Your task to perform on an android device: check google app version Image 0: 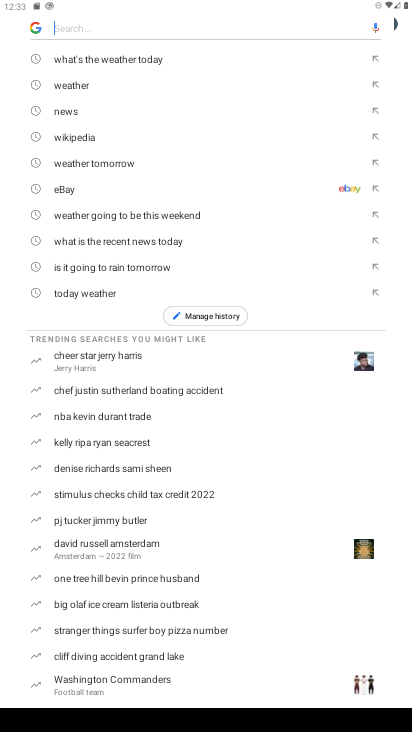
Step 0: press back button
Your task to perform on an android device: check google app version Image 1: 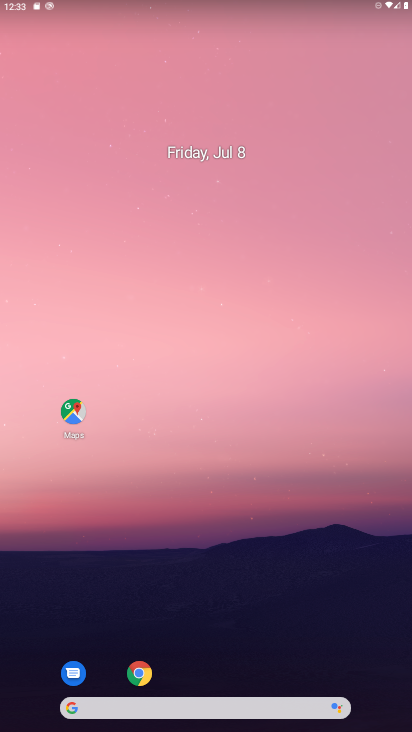
Step 1: drag from (376, 701) to (258, 45)
Your task to perform on an android device: check google app version Image 2: 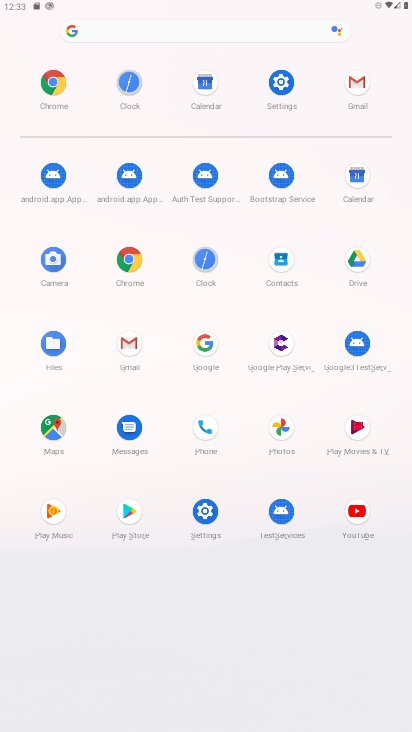
Step 2: click (198, 343)
Your task to perform on an android device: check google app version Image 3: 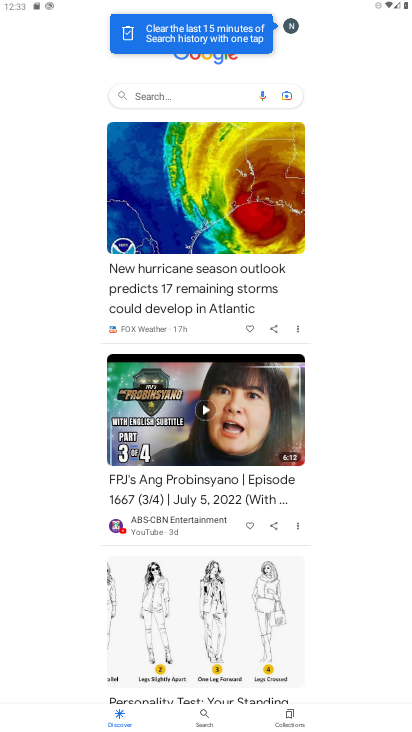
Step 3: press back button
Your task to perform on an android device: check google app version Image 4: 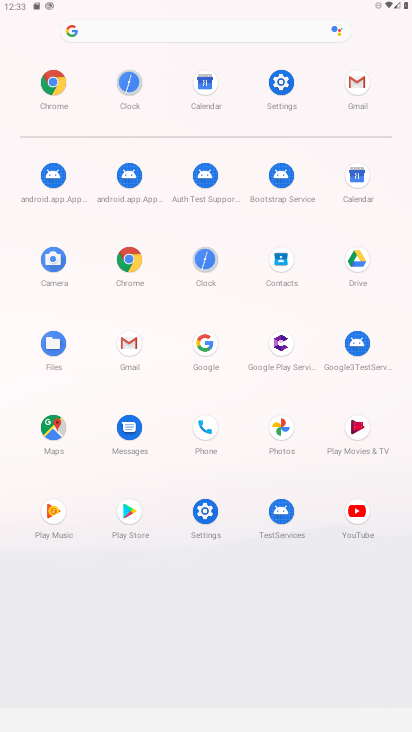
Step 4: click (205, 506)
Your task to perform on an android device: check google app version Image 5: 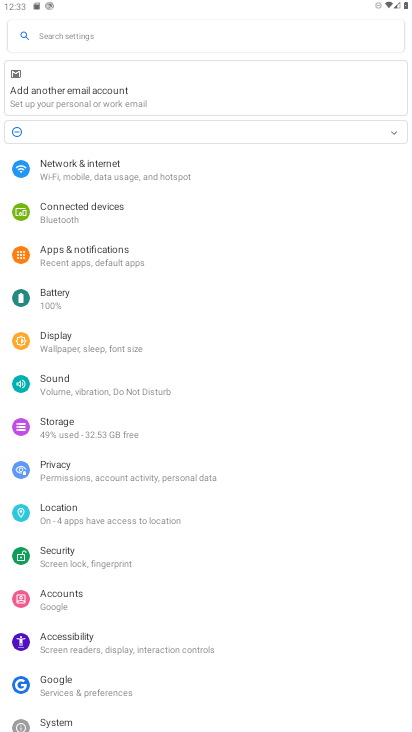
Step 5: drag from (175, 682) to (224, 364)
Your task to perform on an android device: check google app version Image 6: 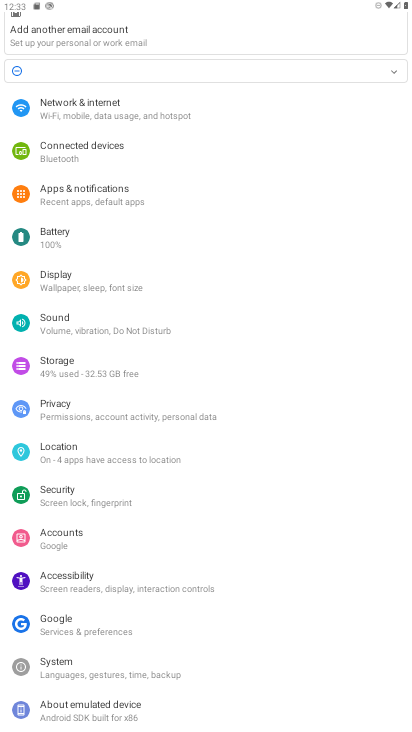
Step 6: click (51, 706)
Your task to perform on an android device: check google app version Image 7: 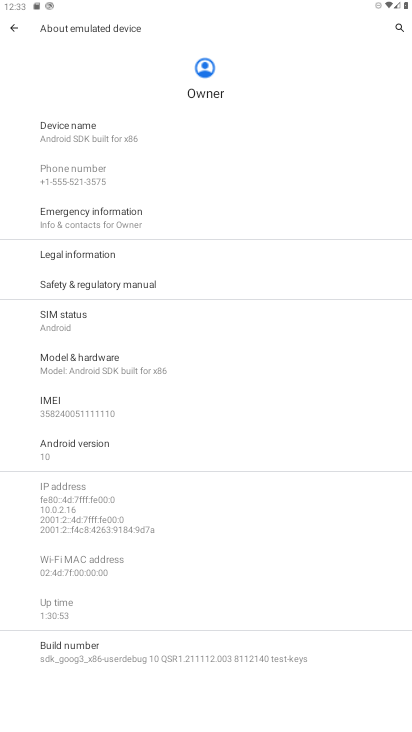
Step 7: click (58, 445)
Your task to perform on an android device: check google app version Image 8: 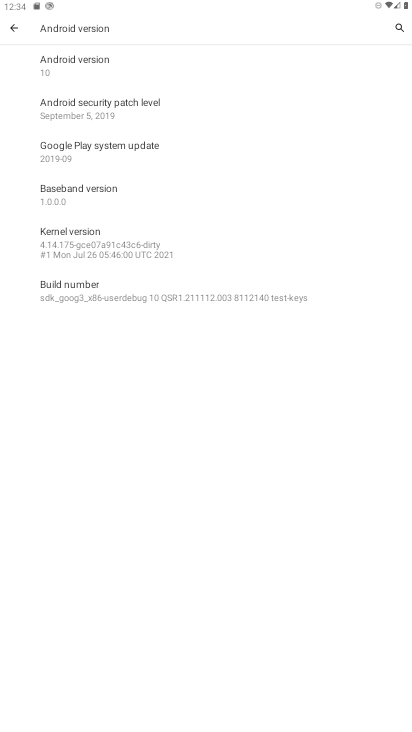
Step 8: click (68, 72)
Your task to perform on an android device: check google app version Image 9: 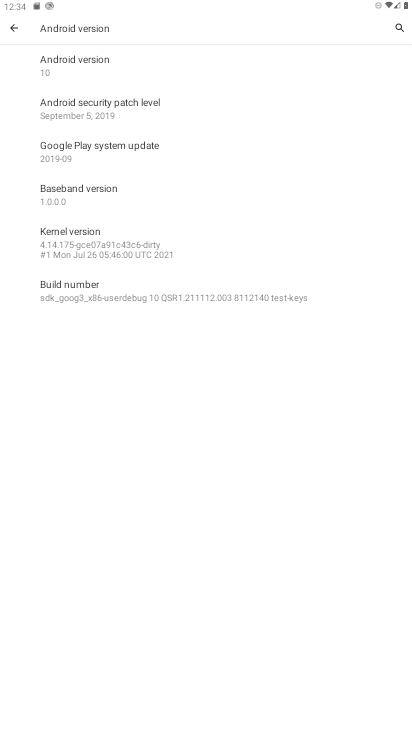
Step 9: task complete